Your task to perform on an android device: Show me recent news Image 0: 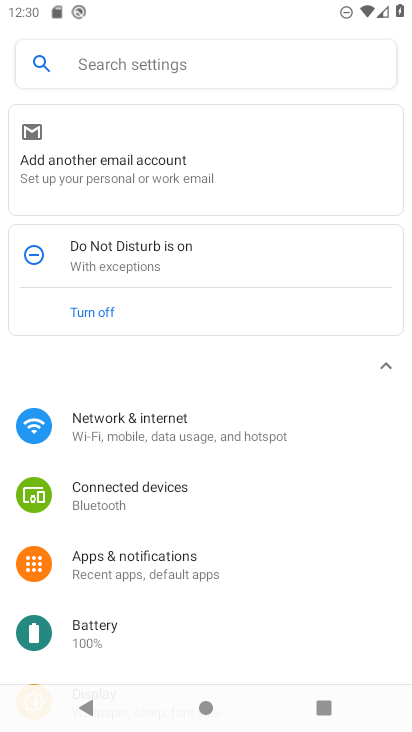
Step 0: press home button
Your task to perform on an android device: Show me recent news Image 1: 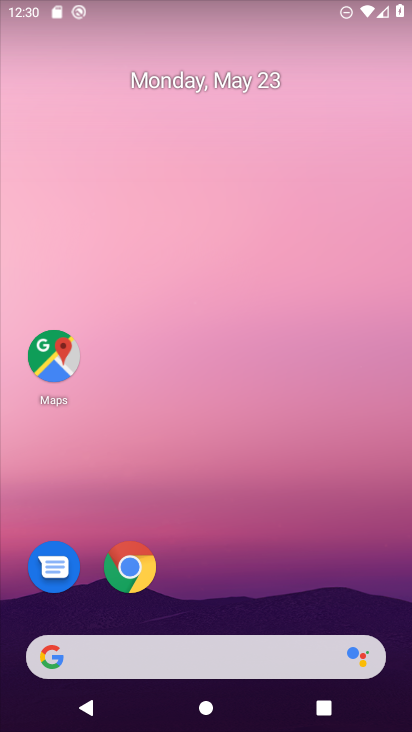
Step 1: click (125, 663)
Your task to perform on an android device: Show me recent news Image 2: 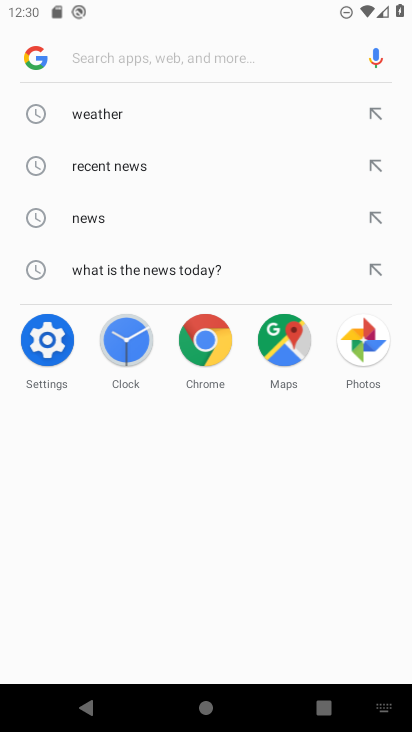
Step 2: click (190, 175)
Your task to perform on an android device: Show me recent news Image 3: 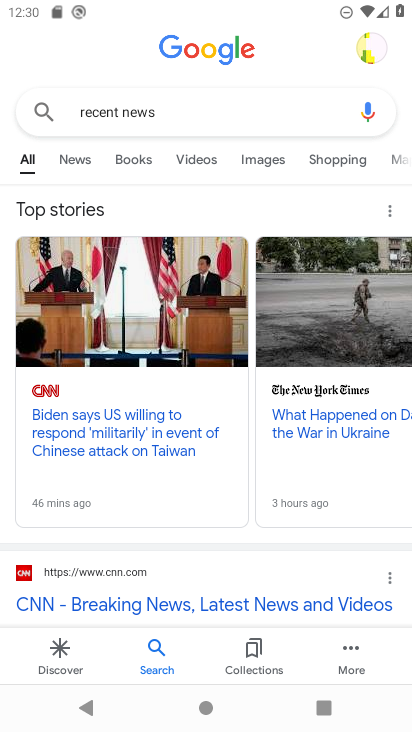
Step 3: task complete